Your task to perform on an android device: turn on showing notifications on the lock screen Image 0: 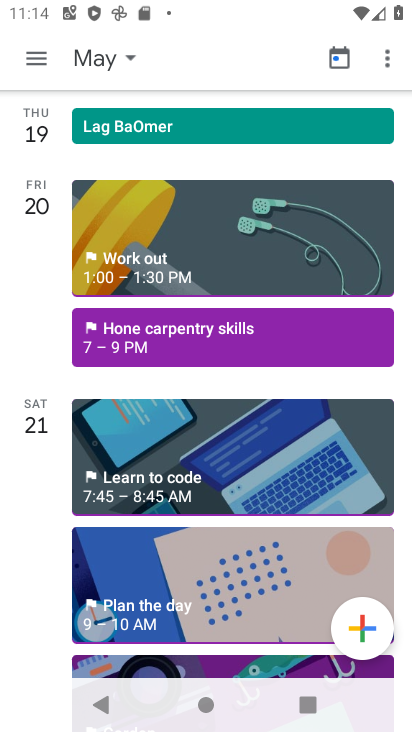
Step 0: press home button
Your task to perform on an android device: turn on showing notifications on the lock screen Image 1: 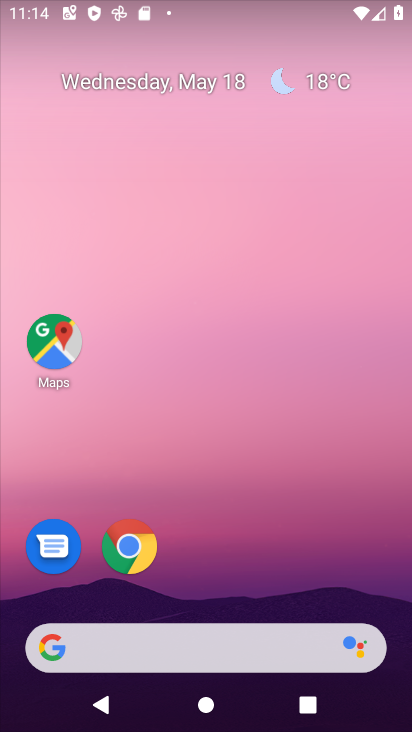
Step 1: drag from (225, 715) to (196, 197)
Your task to perform on an android device: turn on showing notifications on the lock screen Image 2: 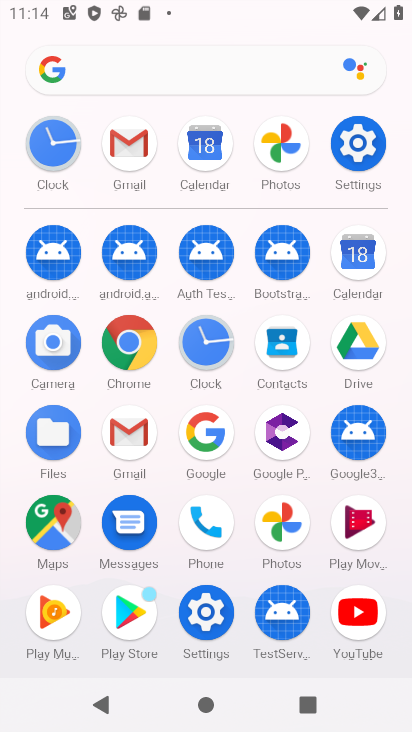
Step 2: click (359, 144)
Your task to perform on an android device: turn on showing notifications on the lock screen Image 3: 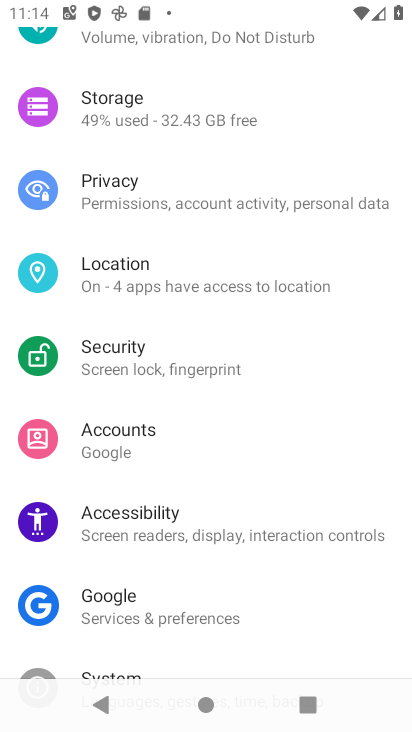
Step 3: drag from (219, 111) to (240, 620)
Your task to perform on an android device: turn on showing notifications on the lock screen Image 4: 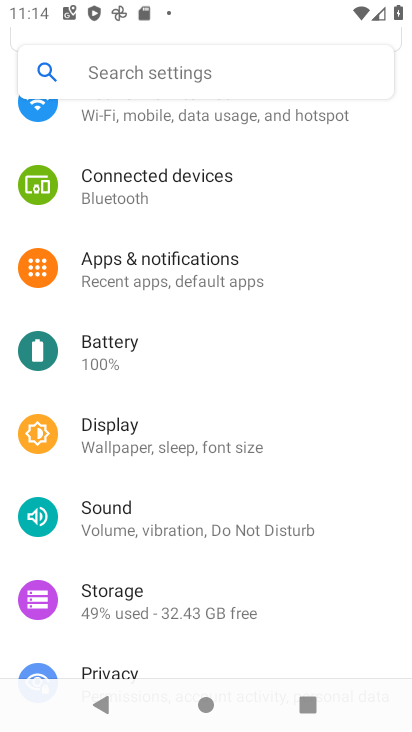
Step 4: click (177, 264)
Your task to perform on an android device: turn on showing notifications on the lock screen Image 5: 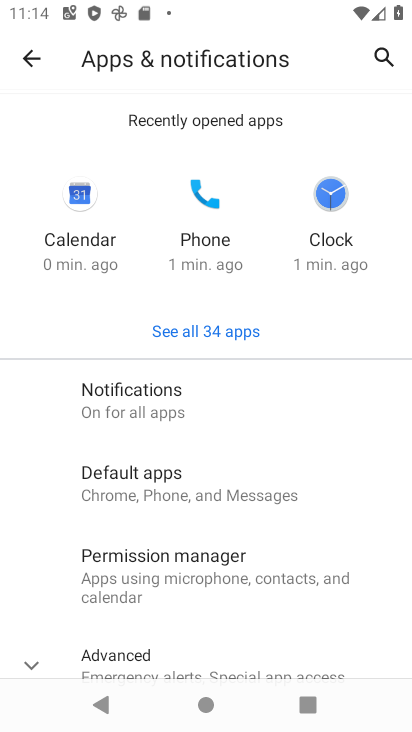
Step 5: click (134, 402)
Your task to perform on an android device: turn on showing notifications on the lock screen Image 6: 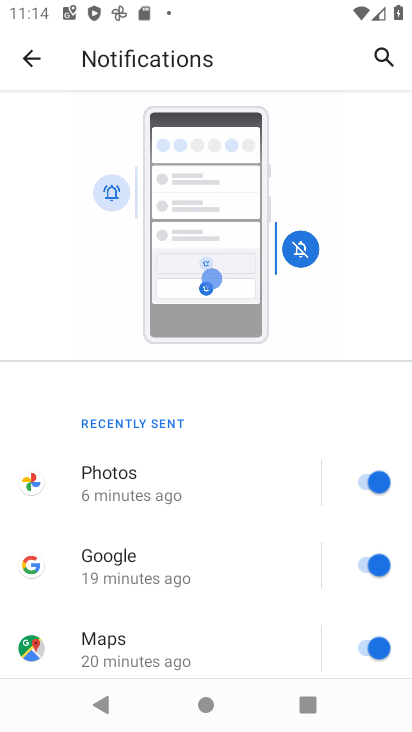
Step 6: task complete